Your task to perform on an android device: open app "DuckDuckGo Privacy Browser" (install if not already installed) and enter user name: "cleaving@outlook.com" and password: "freighters" Image 0: 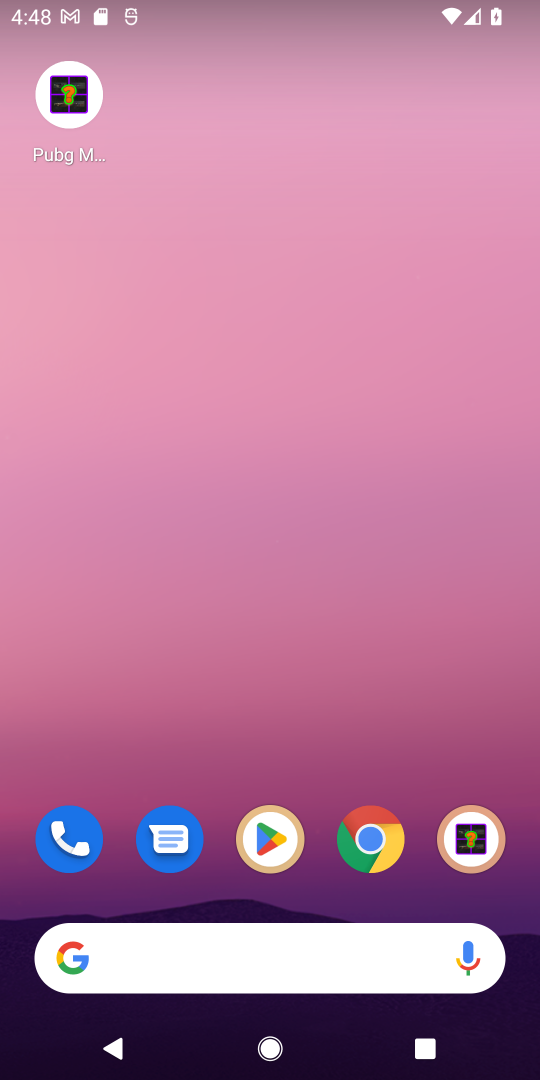
Step 0: press home button
Your task to perform on an android device: open app "DuckDuckGo Privacy Browser" (install if not already installed) and enter user name: "cleaving@outlook.com" and password: "freighters" Image 1: 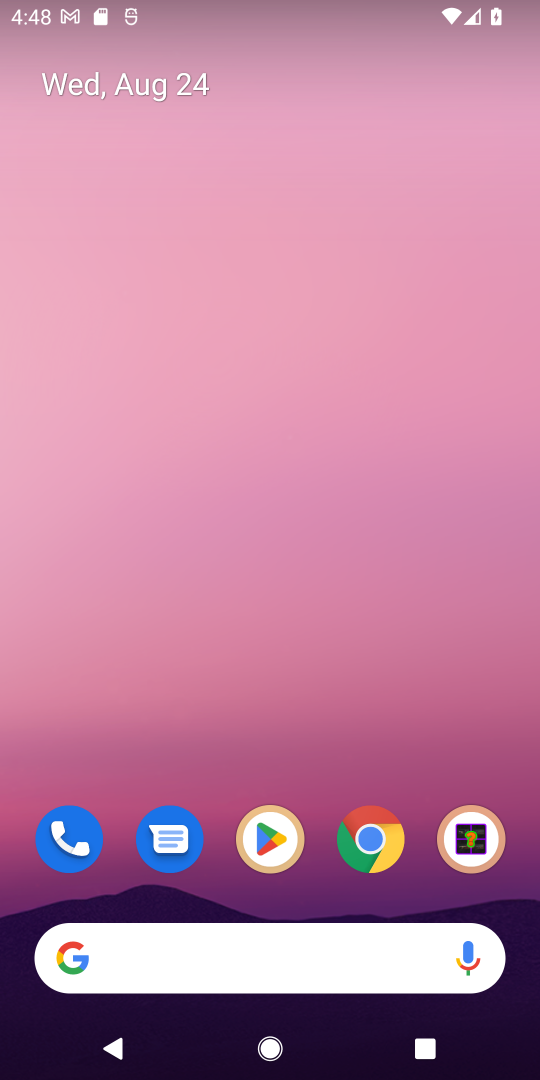
Step 1: click (275, 829)
Your task to perform on an android device: open app "DuckDuckGo Privacy Browser" (install if not already installed) and enter user name: "cleaving@outlook.com" and password: "freighters" Image 2: 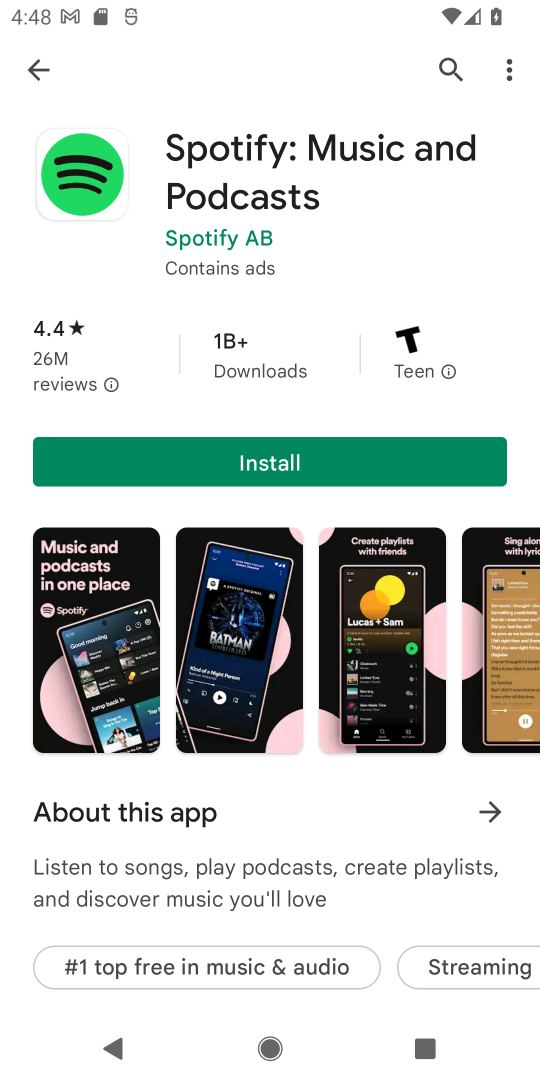
Step 2: click (446, 55)
Your task to perform on an android device: open app "DuckDuckGo Privacy Browser" (install if not already installed) and enter user name: "cleaving@outlook.com" and password: "freighters" Image 3: 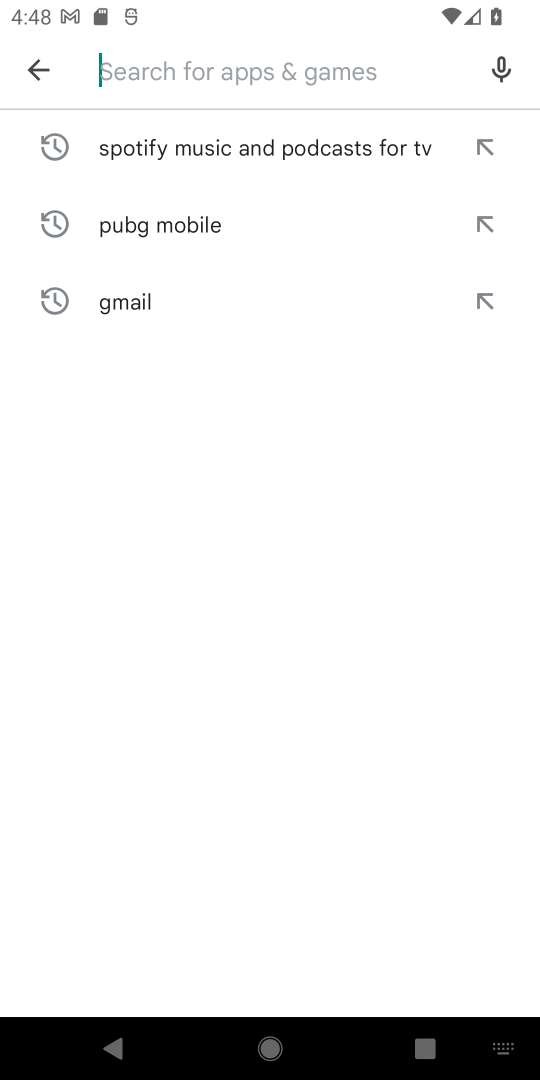
Step 3: type "DuckDuckGo Privacy Browser"
Your task to perform on an android device: open app "DuckDuckGo Privacy Browser" (install if not already installed) and enter user name: "cleaving@outlook.com" and password: "freighters" Image 4: 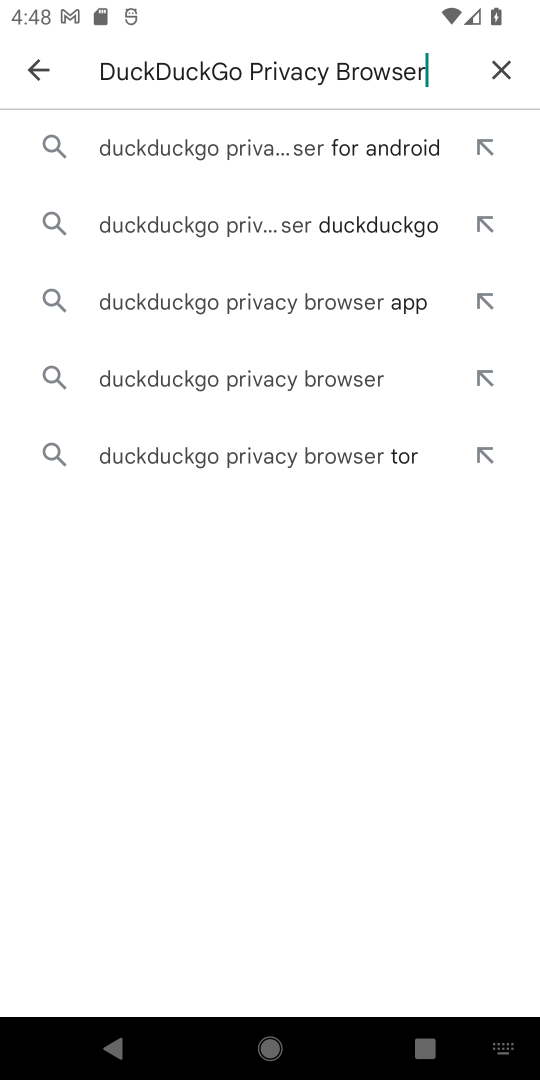
Step 4: click (359, 144)
Your task to perform on an android device: open app "DuckDuckGo Privacy Browser" (install if not already installed) and enter user name: "cleaving@outlook.com" and password: "freighters" Image 5: 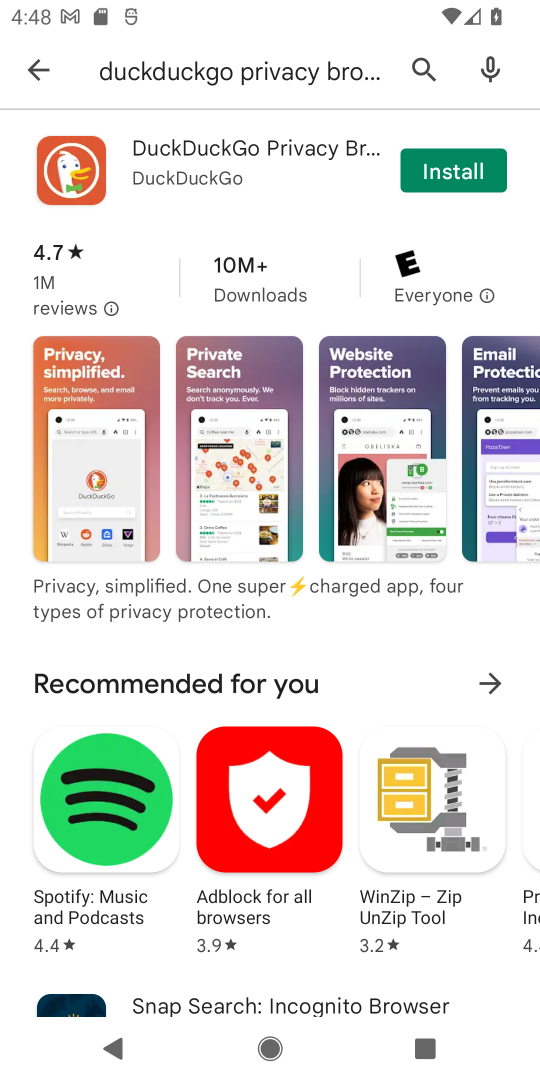
Step 5: click (475, 177)
Your task to perform on an android device: open app "DuckDuckGo Privacy Browser" (install if not already installed) and enter user name: "cleaving@outlook.com" and password: "freighters" Image 6: 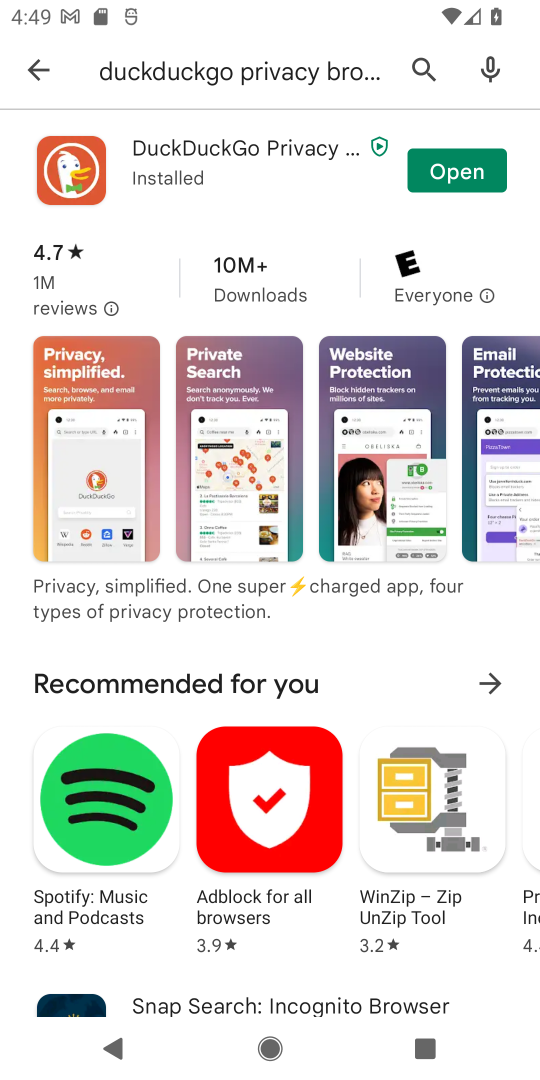
Step 6: click (476, 182)
Your task to perform on an android device: open app "DuckDuckGo Privacy Browser" (install if not already installed) and enter user name: "cleaving@outlook.com" and password: "freighters" Image 7: 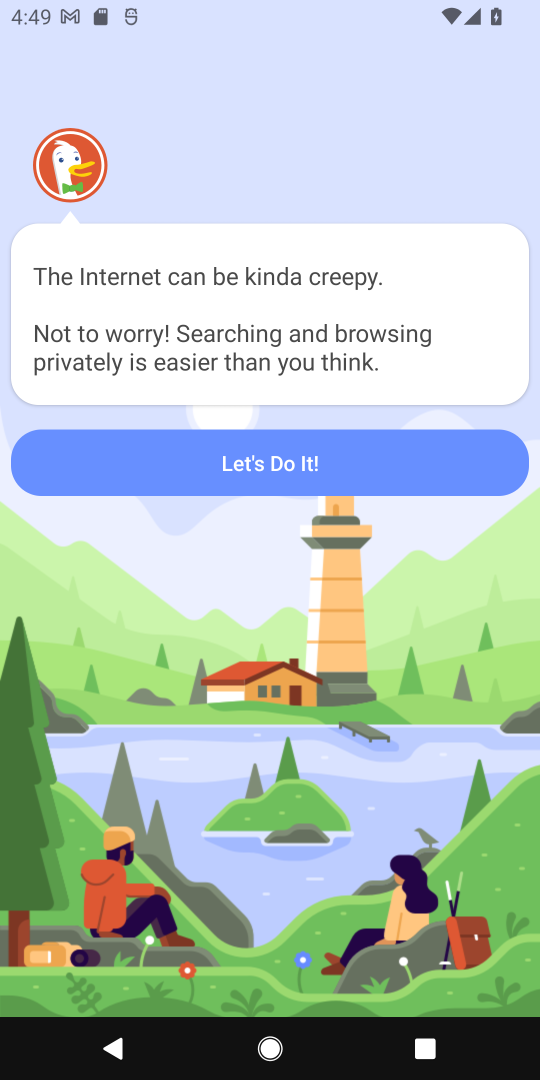
Step 7: task complete